Your task to perform on an android device: toggle sleep mode Image 0: 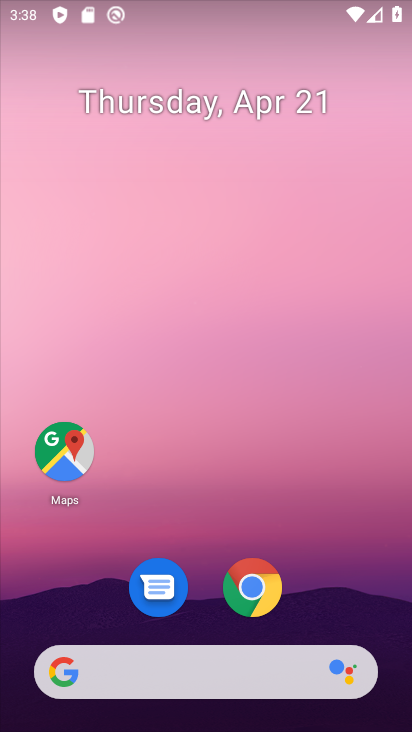
Step 0: drag from (357, 471) to (363, 6)
Your task to perform on an android device: toggle sleep mode Image 1: 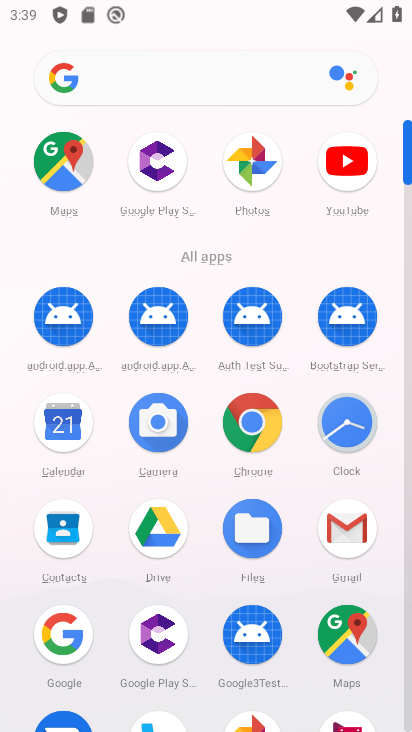
Step 1: click (408, 573)
Your task to perform on an android device: toggle sleep mode Image 2: 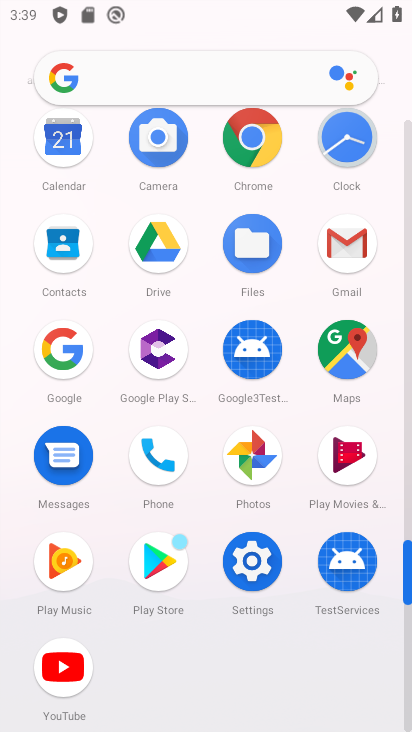
Step 2: click (260, 571)
Your task to perform on an android device: toggle sleep mode Image 3: 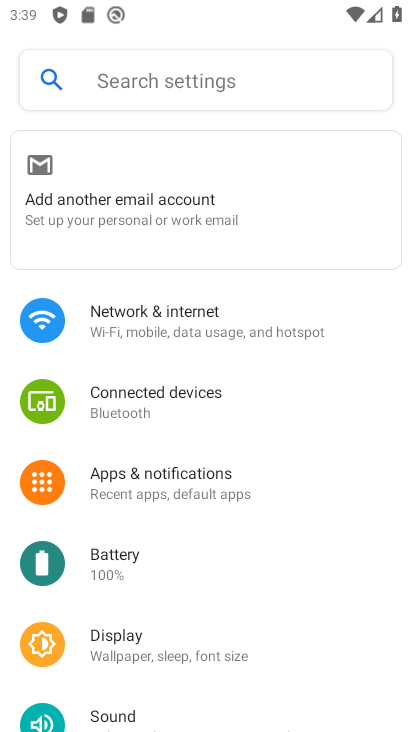
Step 3: click (137, 651)
Your task to perform on an android device: toggle sleep mode Image 4: 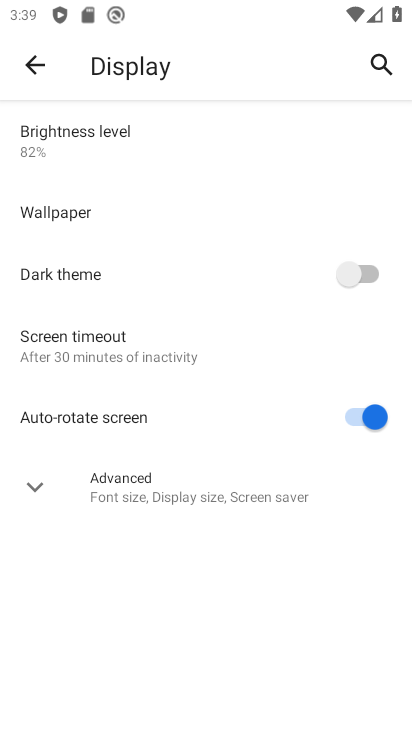
Step 4: click (35, 483)
Your task to perform on an android device: toggle sleep mode Image 5: 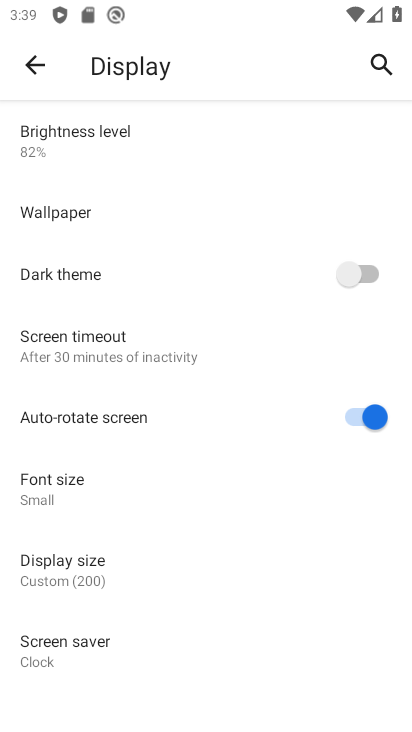
Step 5: task complete